Your task to perform on an android device: toggle pop-ups in chrome Image 0: 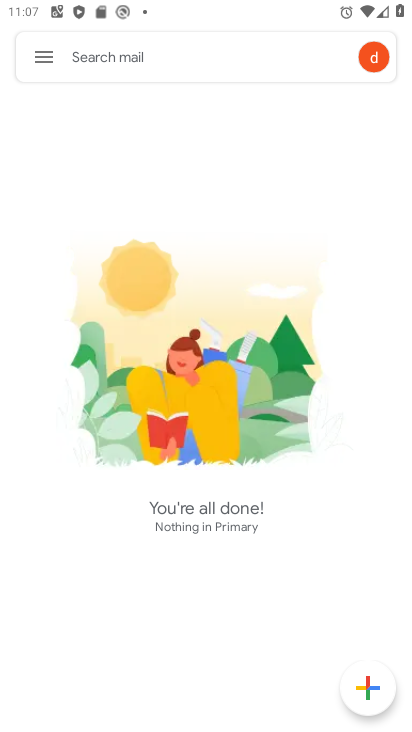
Step 0: press home button
Your task to perform on an android device: toggle pop-ups in chrome Image 1: 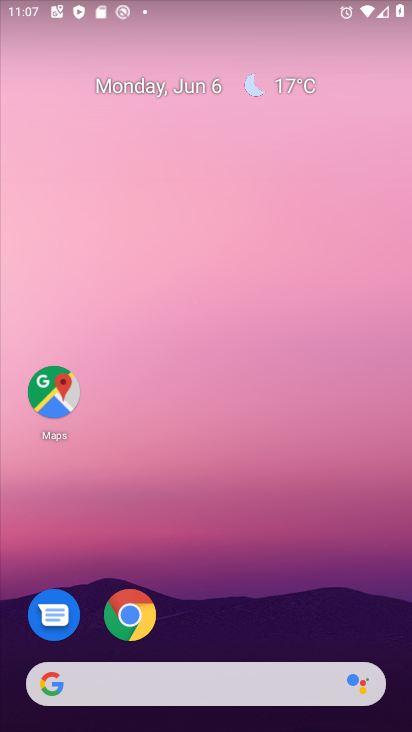
Step 1: click (124, 606)
Your task to perform on an android device: toggle pop-ups in chrome Image 2: 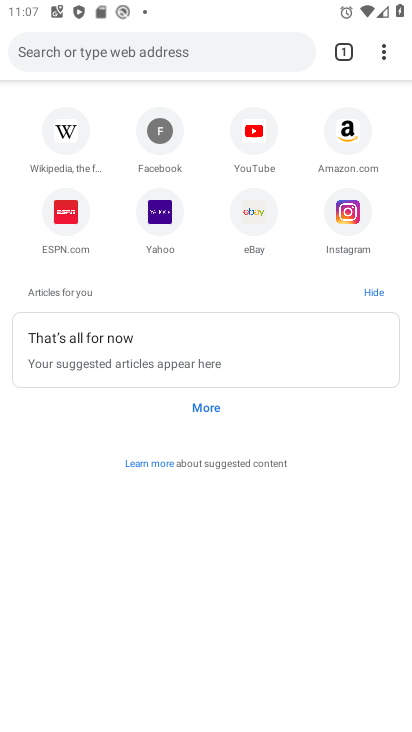
Step 2: click (383, 49)
Your task to perform on an android device: toggle pop-ups in chrome Image 3: 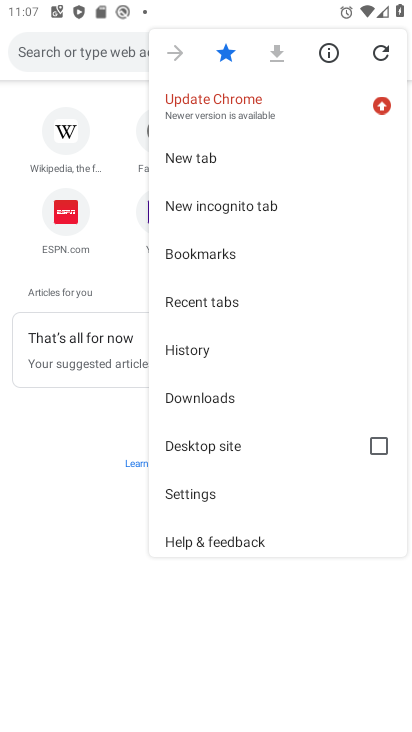
Step 3: click (229, 490)
Your task to perform on an android device: toggle pop-ups in chrome Image 4: 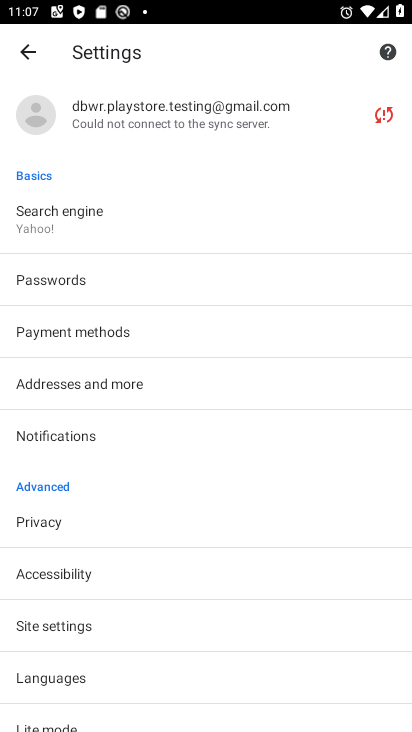
Step 4: click (106, 627)
Your task to perform on an android device: toggle pop-ups in chrome Image 5: 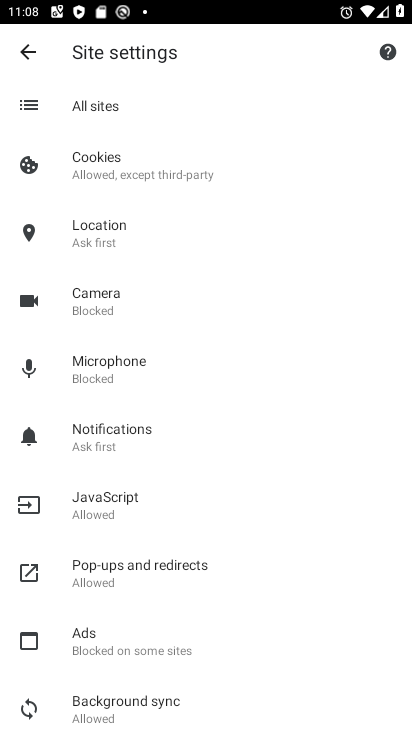
Step 5: click (128, 573)
Your task to perform on an android device: toggle pop-ups in chrome Image 6: 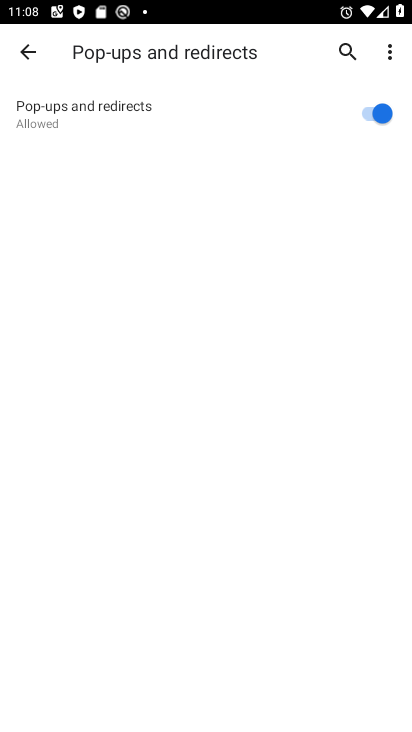
Step 6: task complete